Your task to perform on an android device: Clear the shopping cart on amazon. Add asus zenbook to the cart on amazon, then select checkout. Image 0: 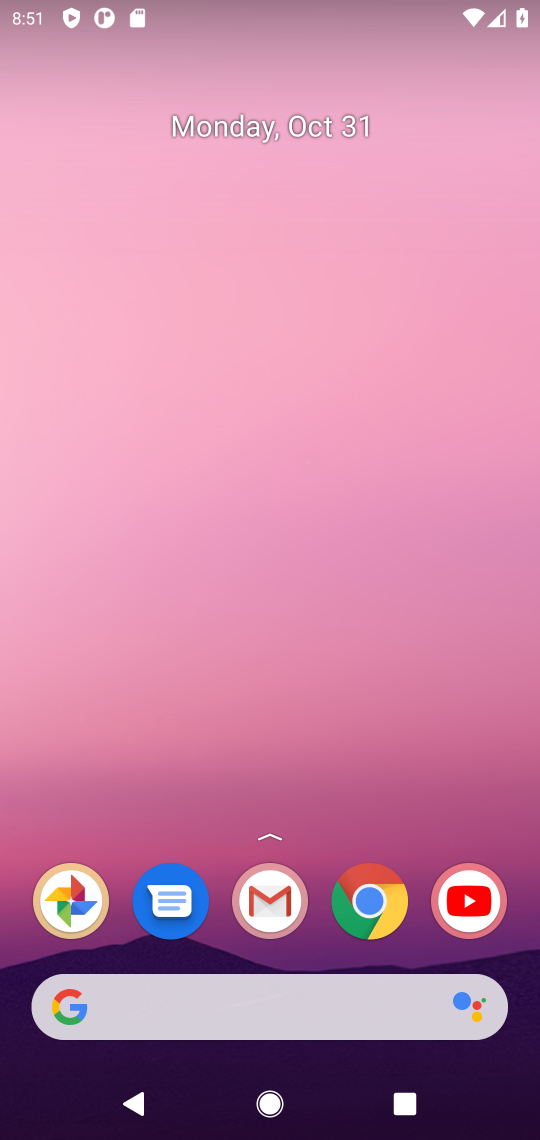
Step 0: drag from (217, 891) to (209, 183)
Your task to perform on an android device: Clear the shopping cart on amazon. Add asus zenbook to the cart on amazon, then select checkout. Image 1: 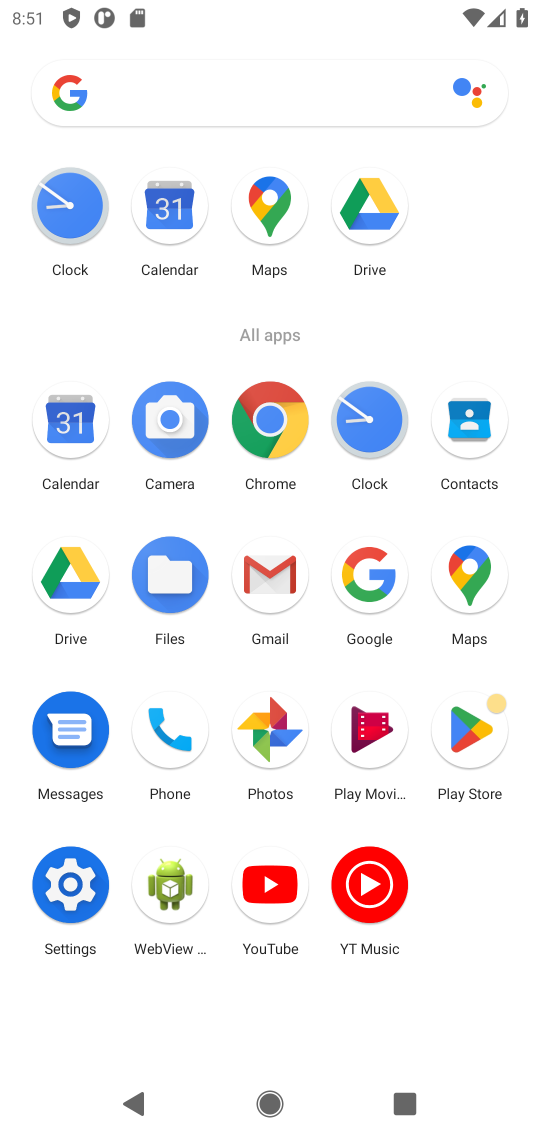
Step 1: click (367, 580)
Your task to perform on an android device: Clear the shopping cart on amazon. Add asus zenbook to the cart on amazon, then select checkout. Image 2: 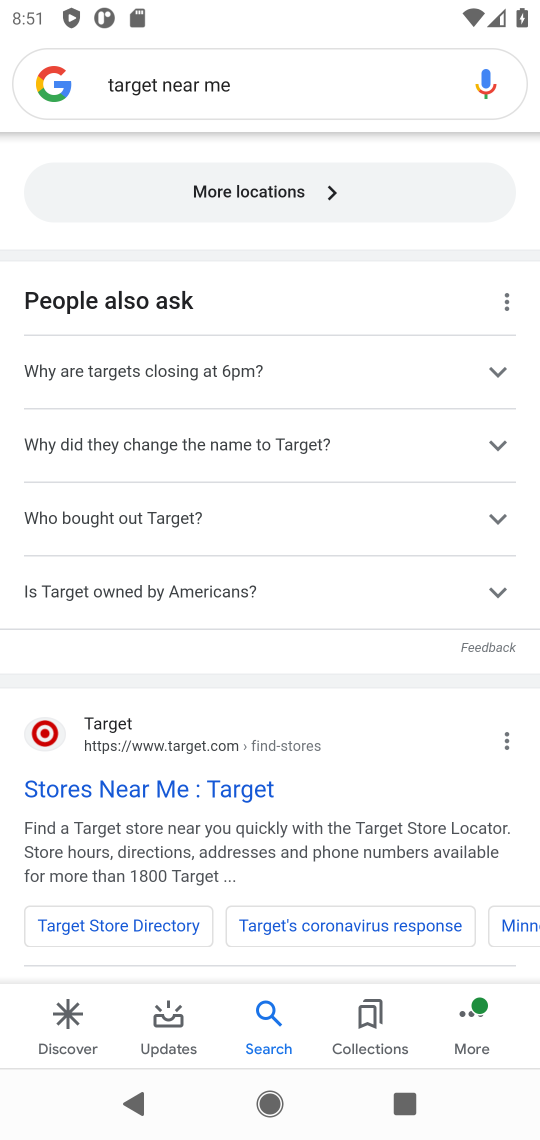
Step 2: click (183, 78)
Your task to perform on an android device: Clear the shopping cart on amazon. Add asus zenbook to the cart on amazon, then select checkout. Image 3: 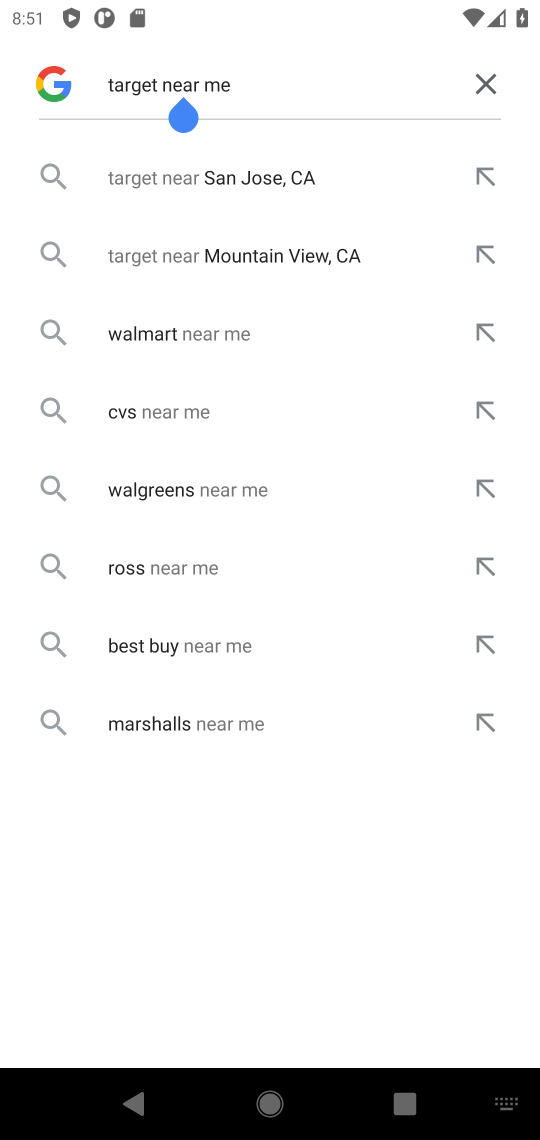
Step 3: click (484, 76)
Your task to perform on an android device: Clear the shopping cart on amazon. Add asus zenbook to the cart on amazon, then select checkout. Image 4: 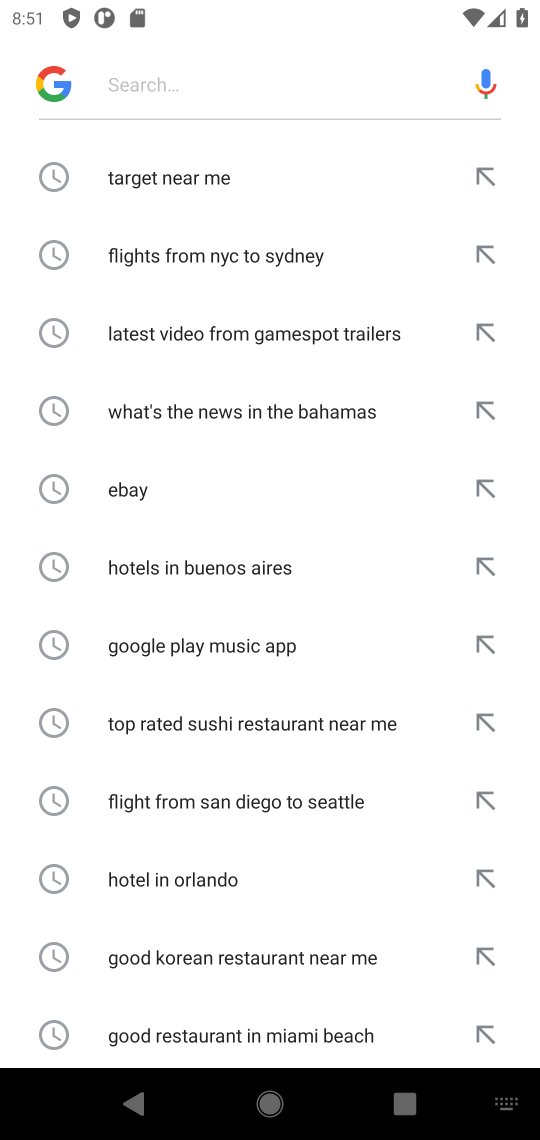
Step 4: click (194, 90)
Your task to perform on an android device: Clear the shopping cart on amazon. Add asus zenbook to the cart on amazon, then select checkout. Image 5: 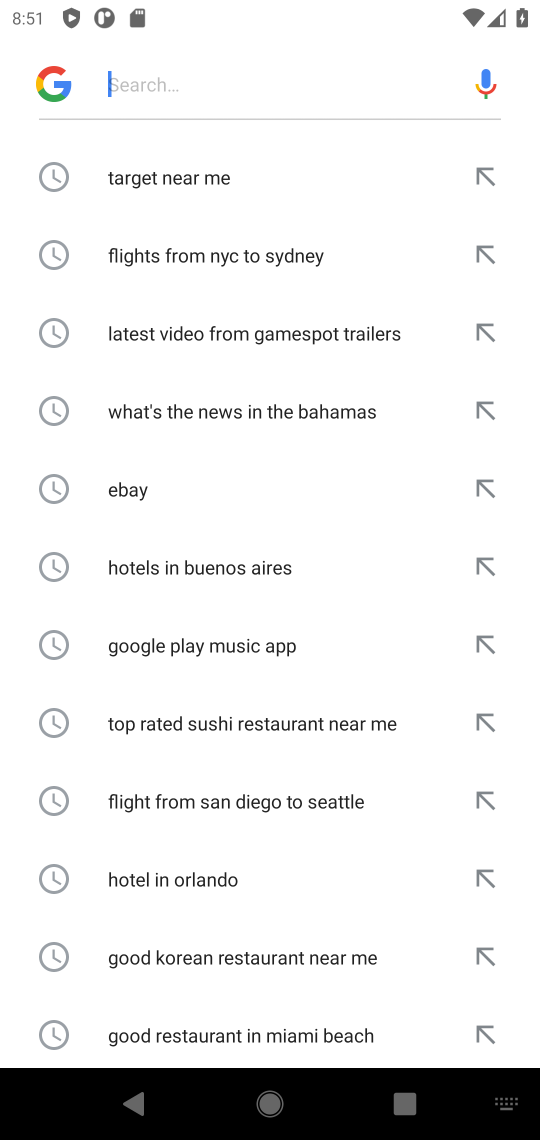
Step 5: type "amazon "
Your task to perform on an android device: Clear the shopping cart on amazon. Add asus zenbook to the cart on amazon, then select checkout. Image 6: 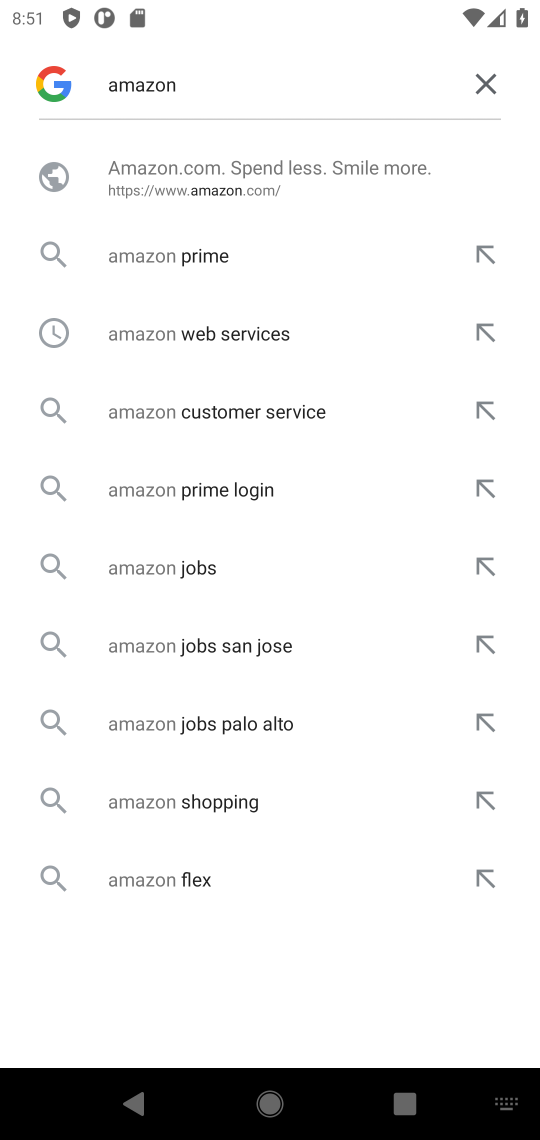
Step 6: click (221, 170)
Your task to perform on an android device: Clear the shopping cart on amazon. Add asus zenbook to the cart on amazon, then select checkout. Image 7: 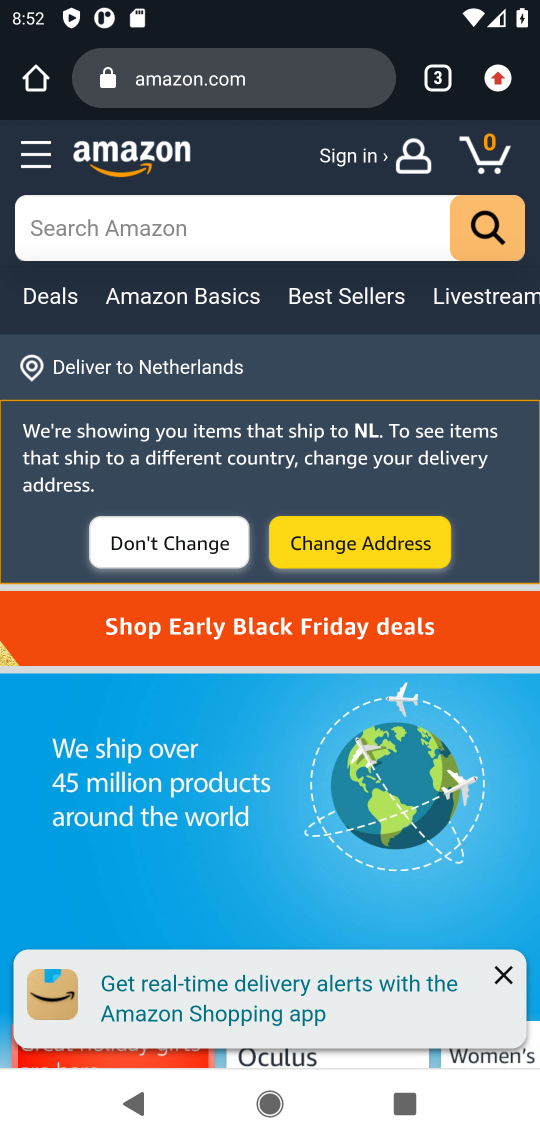
Step 7: click (316, 222)
Your task to perform on an android device: Clear the shopping cart on amazon. Add asus zenbook to the cart on amazon, then select checkout. Image 8: 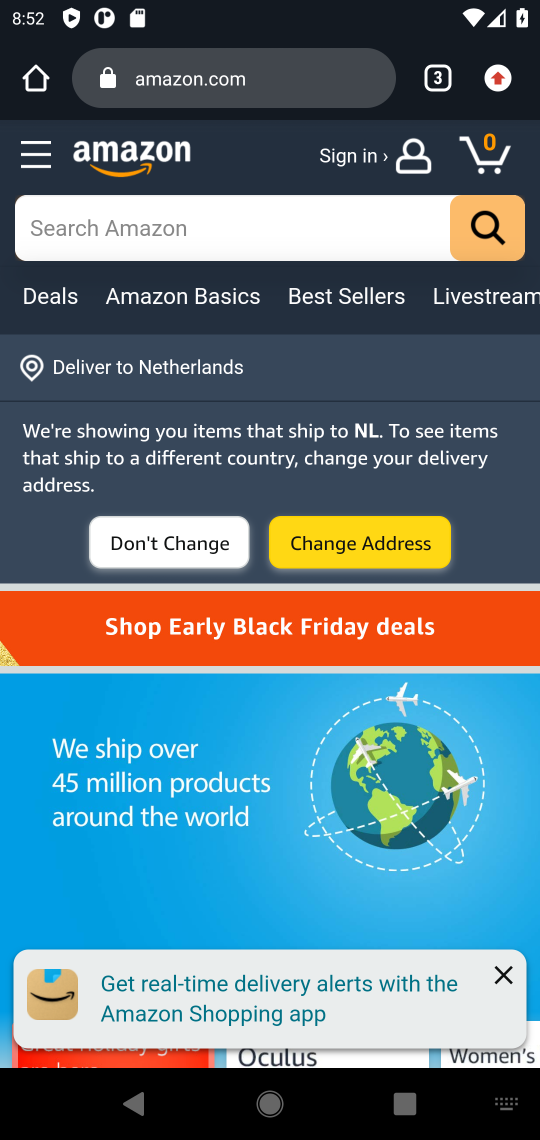
Step 8: type "asus zenbook  "
Your task to perform on an android device: Clear the shopping cart on amazon. Add asus zenbook to the cart on amazon, then select checkout. Image 9: 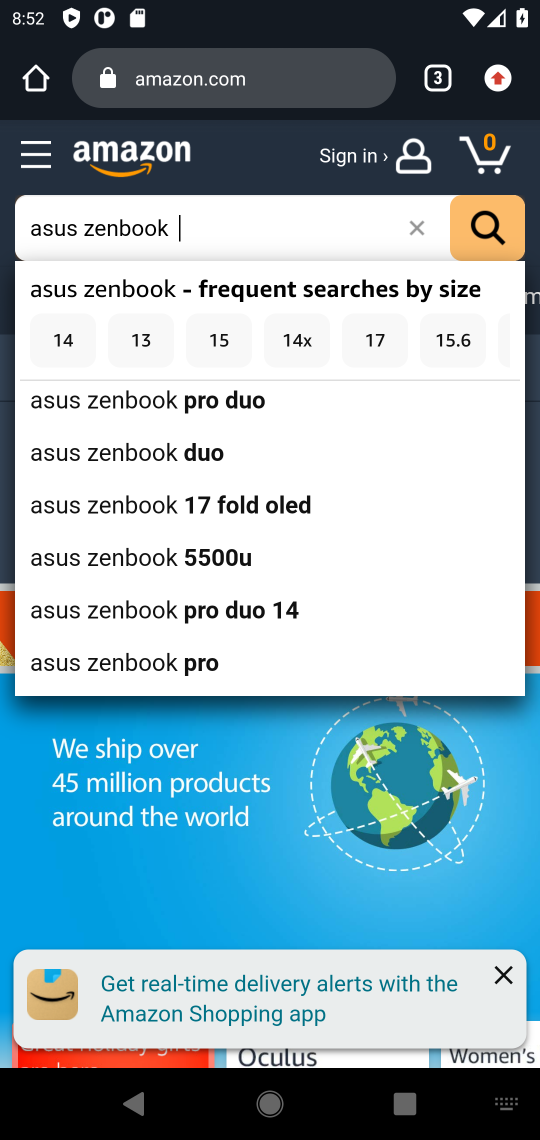
Step 9: click (171, 661)
Your task to perform on an android device: Clear the shopping cart on amazon. Add asus zenbook to the cart on amazon, then select checkout. Image 10: 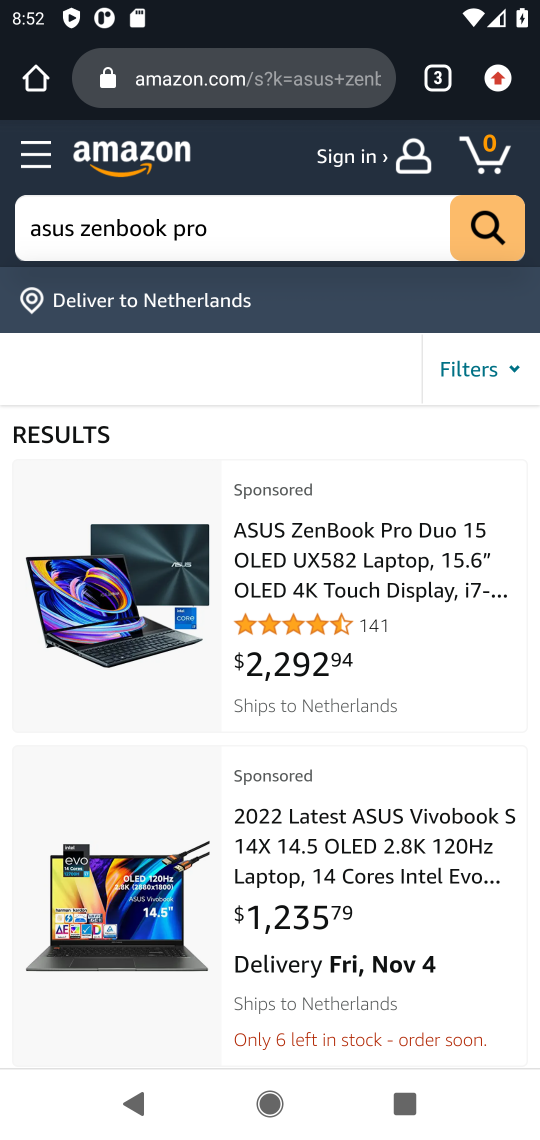
Step 10: click (303, 527)
Your task to perform on an android device: Clear the shopping cart on amazon. Add asus zenbook to the cart on amazon, then select checkout. Image 11: 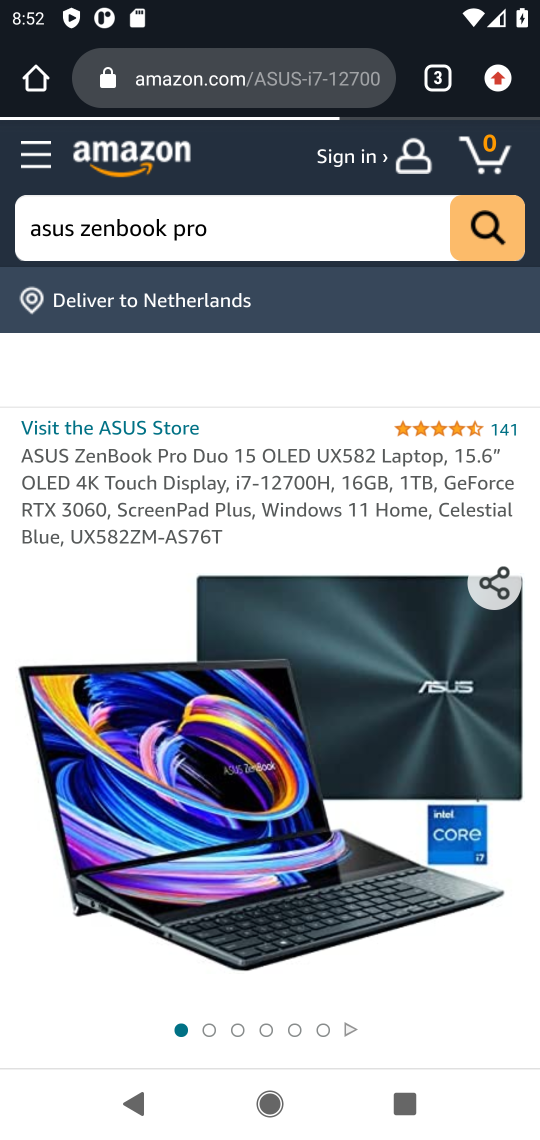
Step 11: drag from (175, 973) to (179, 369)
Your task to perform on an android device: Clear the shopping cart on amazon. Add asus zenbook to the cart on amazon, then select checkout. Image 12: 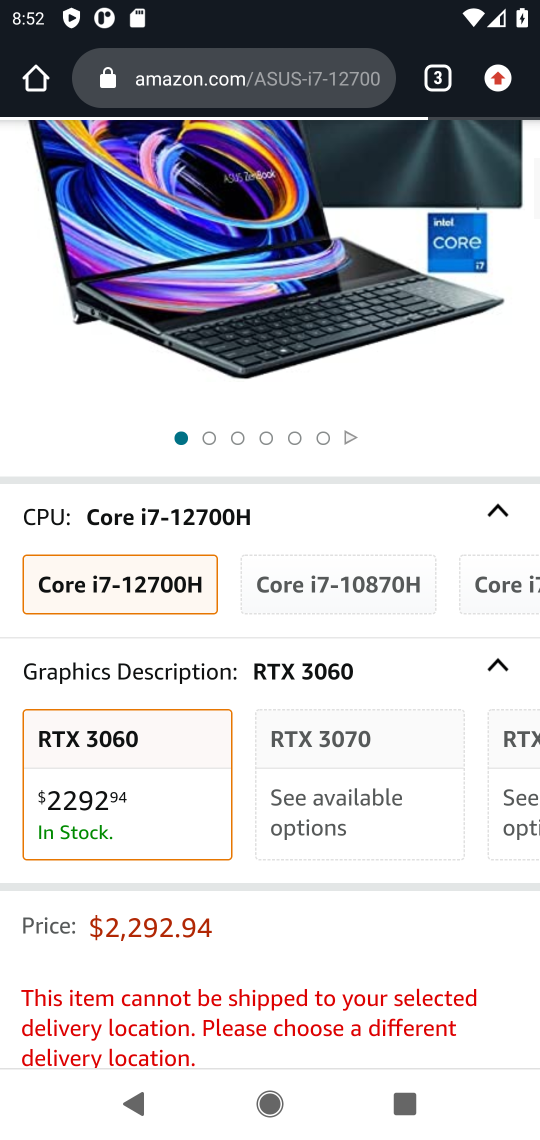
Step 12: drag from (186, 1008) to (265, 407)
Your task to perform on an android device: Clear the shopping cart on amazon. Add asus zenbook to the cart on amazon, then select checkout. Image 13: 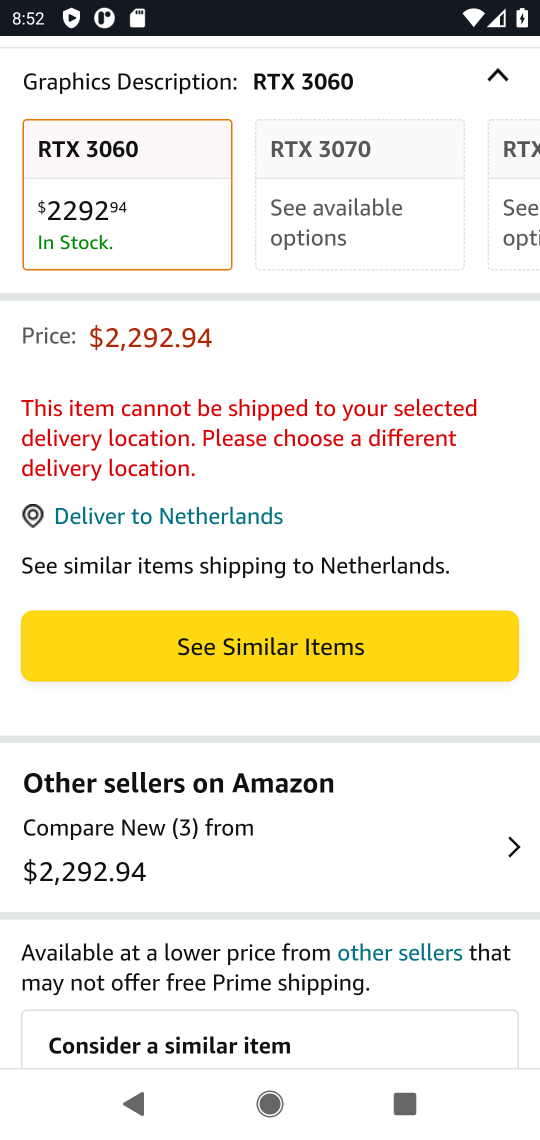
Step 13: click (285, 641)
Your task to perform on an android device: Clear the shopping cart on amazon. Add asus zenbook to the cart on amazon, then select checkout. Image 14: 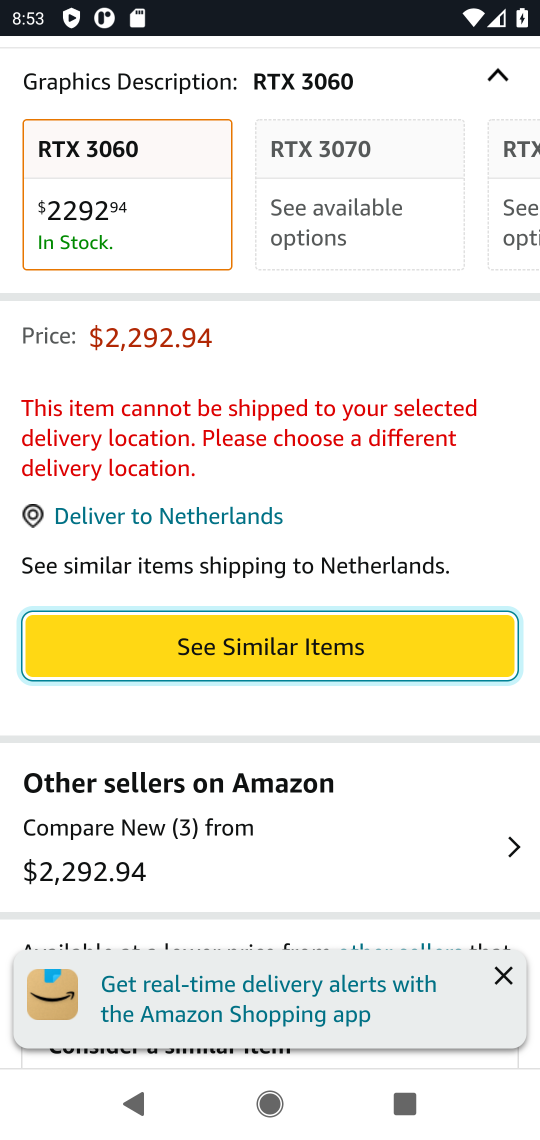
Step 14: click (220, 646)
Your task to perform on an android device: Clear the shopping cart on amazon. Add asus zenbook to the cart on amazon, then select checkout. Image 15: 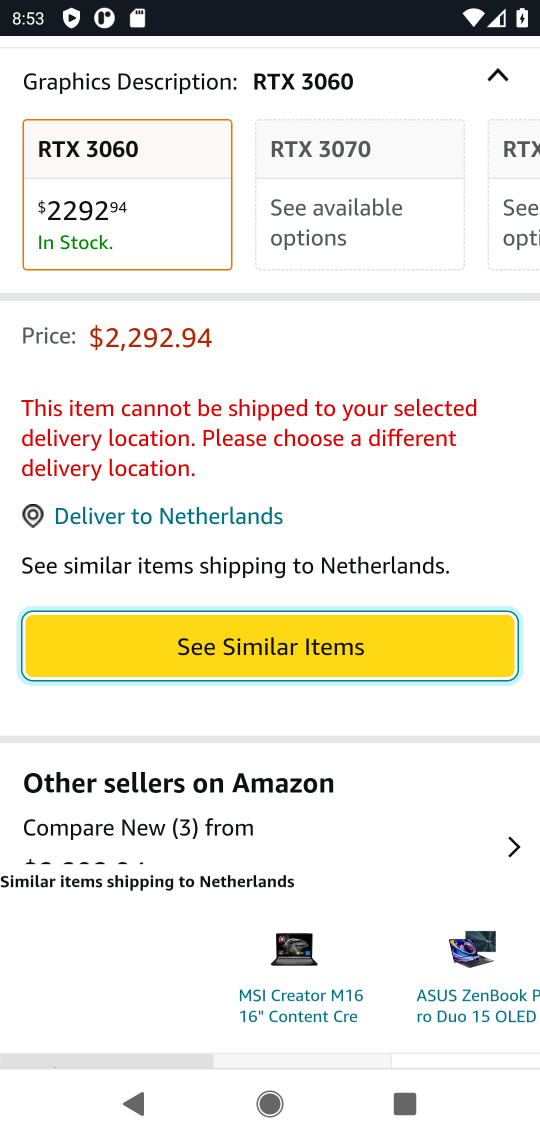
Step 15: click (497, 970)
Your task to perform on an android device: Clear the shopping cart on amazon. Add asus zenbook to the cart on amazon, then select checkout. Image 16: 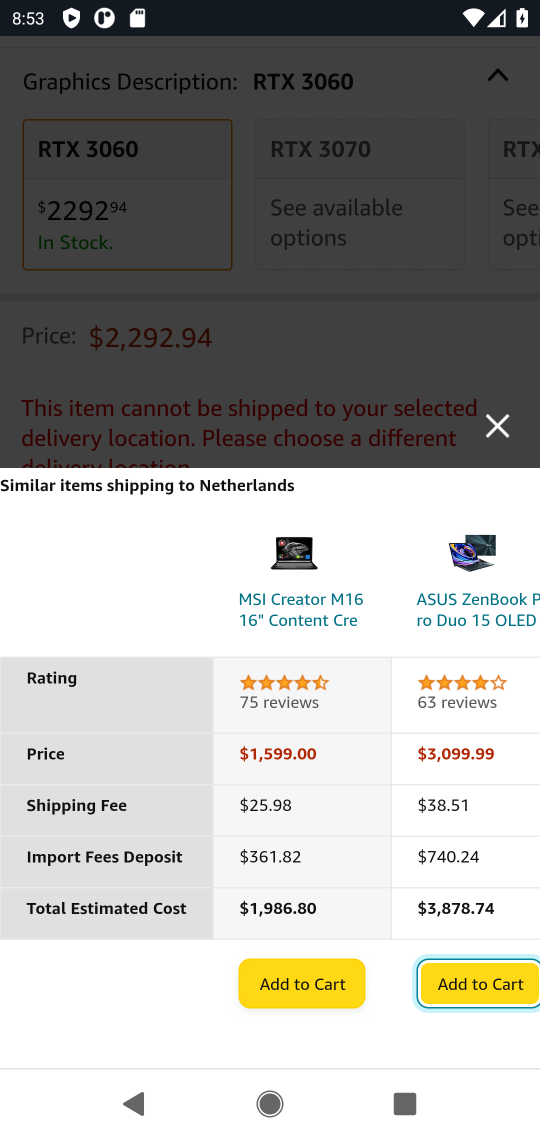
Step 16: click (493, 975)
Your task to perform on an android device: Clear the shopping cart on amazon. Add asus zenbook to the cart on amazon, then select checkout. Image 17: 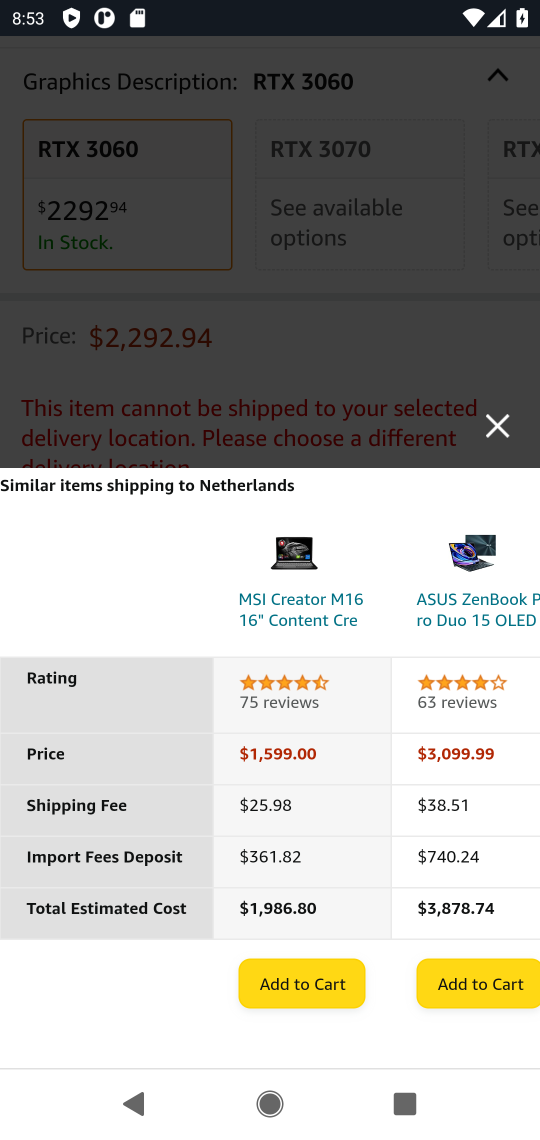
Step 17: click (431, 997)
Your task to perform on an android device: Clear the shopping cart on amazon. Add asus zenbook to the cart on amazon, then select checkout. Image 18: 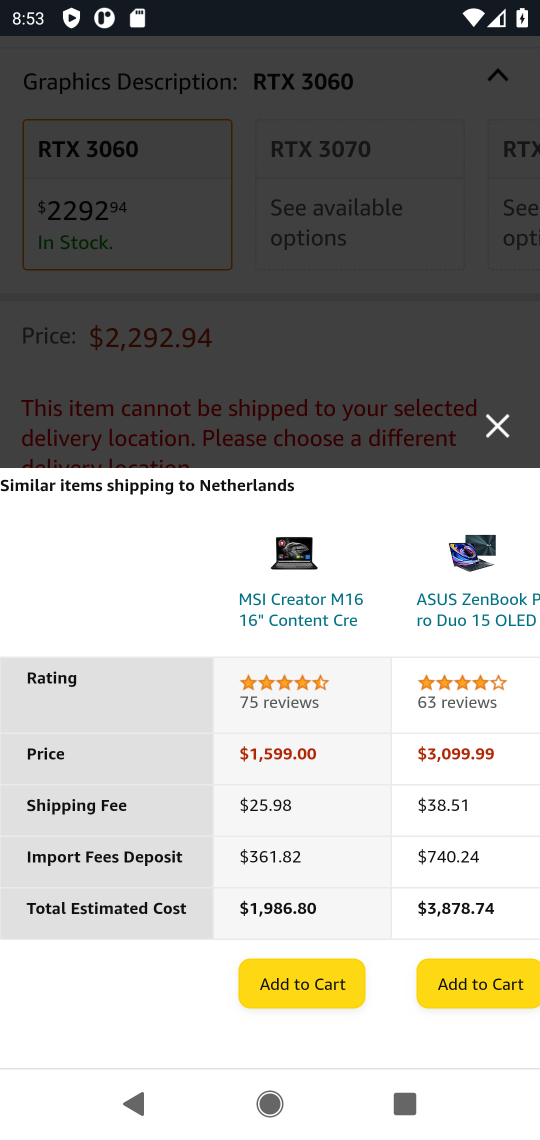
Step 18: click (431, 997)
Your task to perform on an android device: Clear the shopping cart on amazon. Add asus zenbook to the cart on amazon, then select checkout. Image 19: 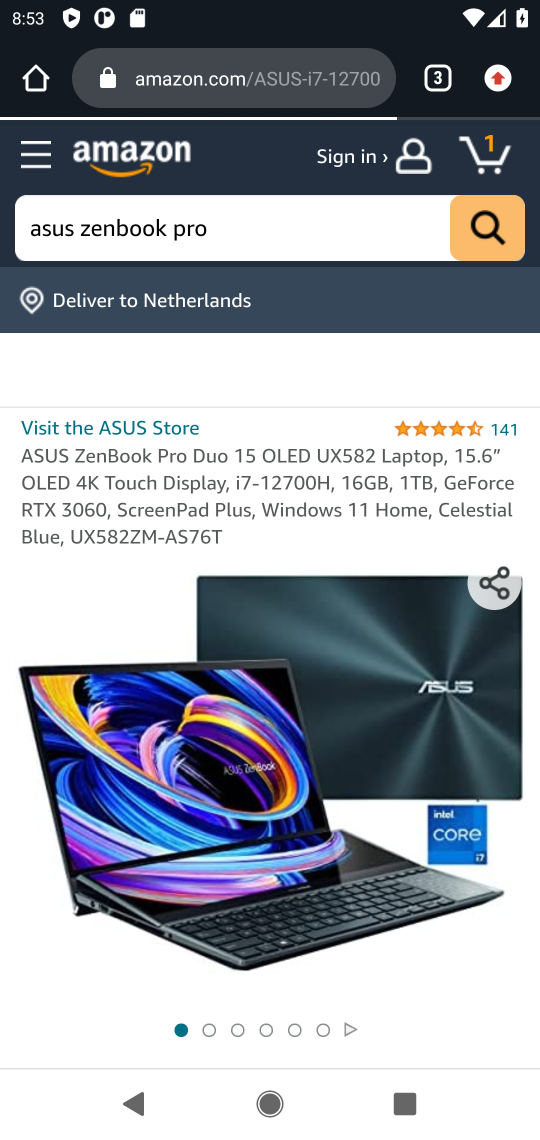
Step 19: task complete